Your task to perform on an android device: clear history in the chrome app Image 0: 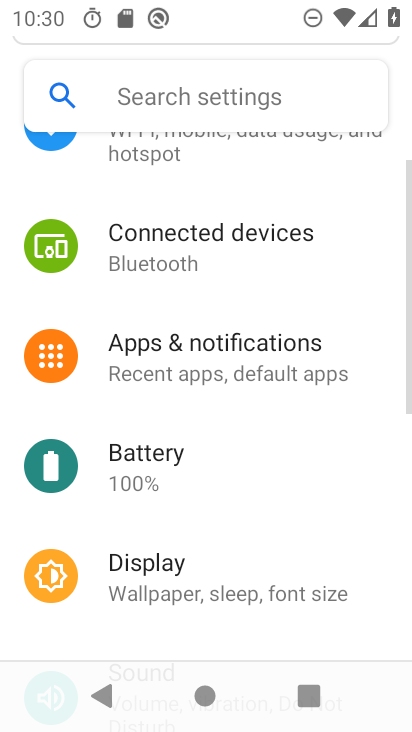
Step 0: press home button
Your task to perform on an android device: clear history in the chrome app Image 1: 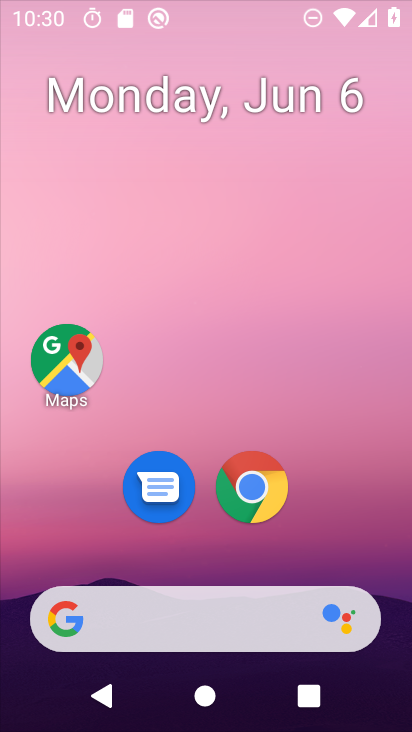
Step 1: drag from (383, 671) to (314, 76)
Your task to perform on an android device: clear history in the chrome app Image 2: 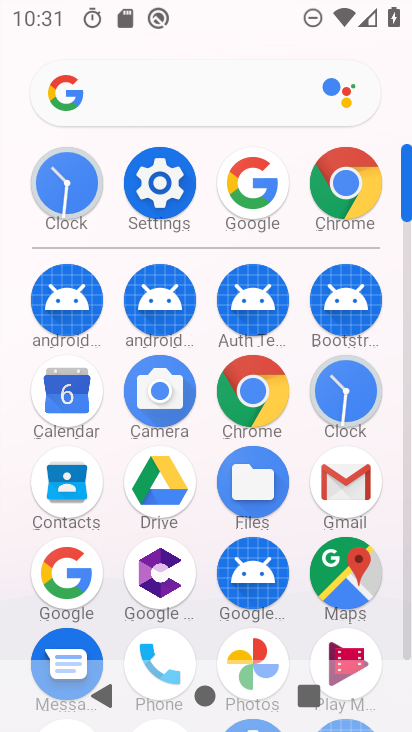
Step 2: click (278, 397)
Your task to perform on an android device: clear history in the chrome app Image 3: 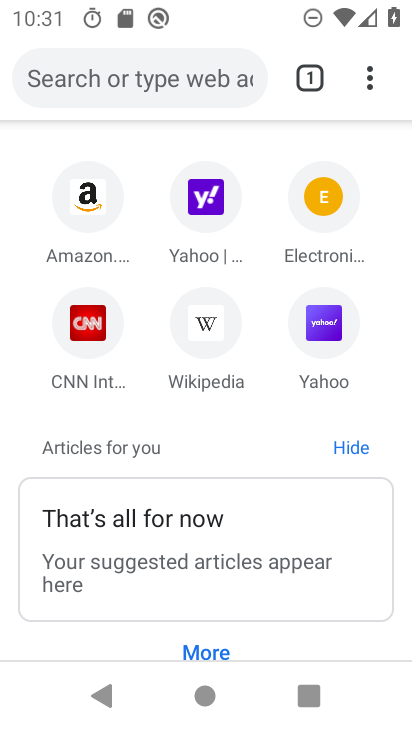
Step 3: click (374, 74)
Your task to perform on an android device: clear history in the chrome app Image 4: 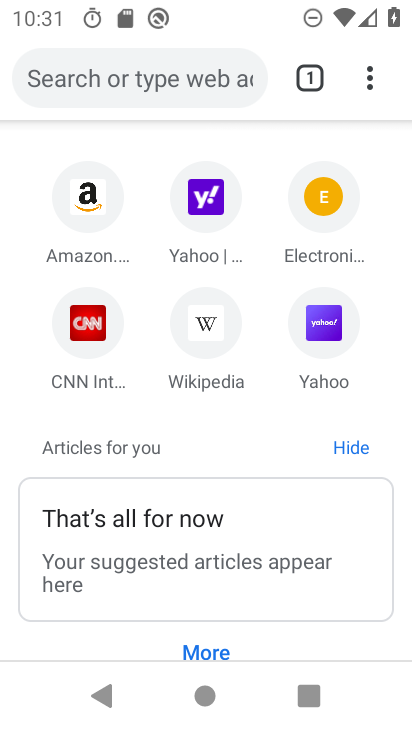
Step 4: click (374, 74)
Your task to perform on an android device: clear history in the chrome app Image 5: 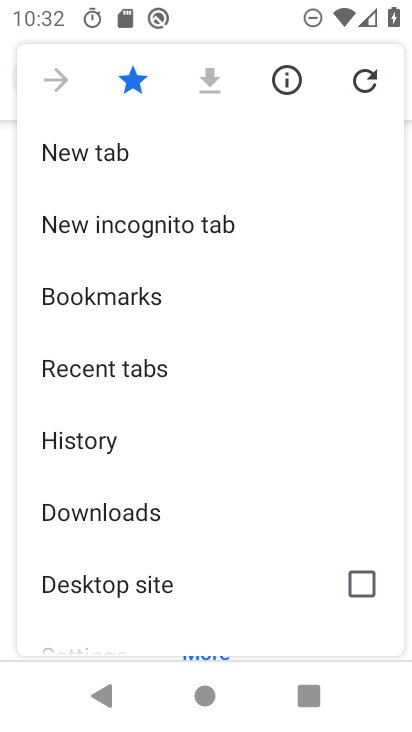
Step 5: click (115, 456)
Your task to perform on an android device: clear history in the chrome app Image 6: 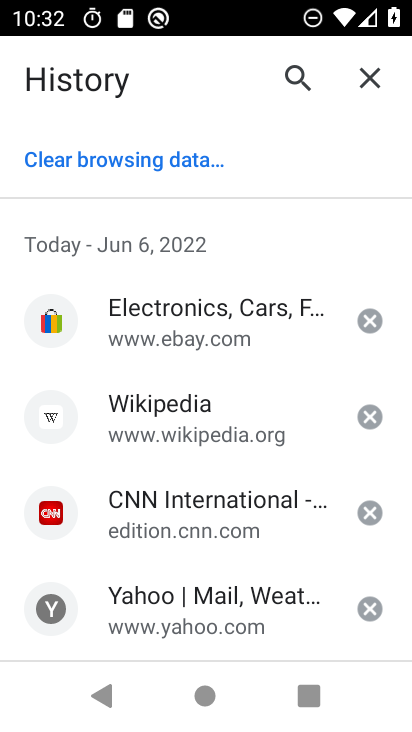
Step 6: click (163, 174)
Your task to perform on an android device: clear history in the chrome app Image 7: 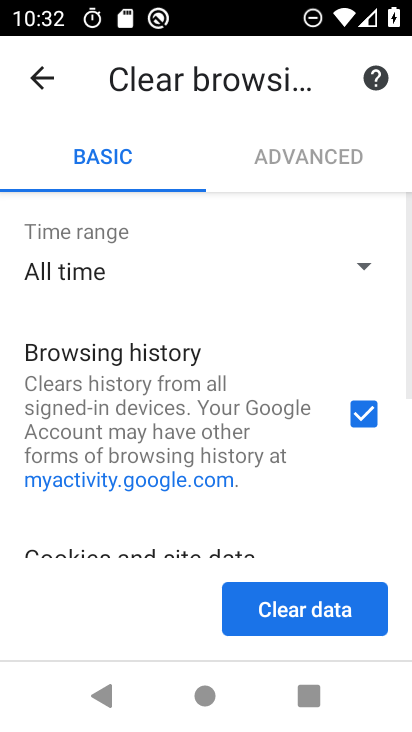
Step 7: click (348, 599)
Your task to perform on an android device: clear history in the chrome app Image 8: 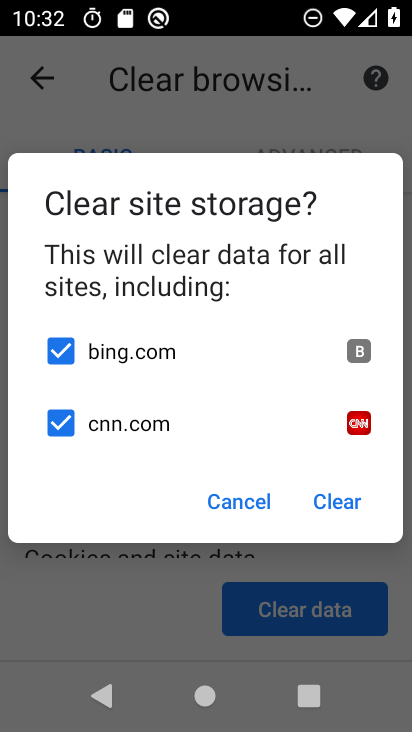
Step 8: click (341, 502)
Your task to perform on an android device: clear history in the chrome app Image 9: 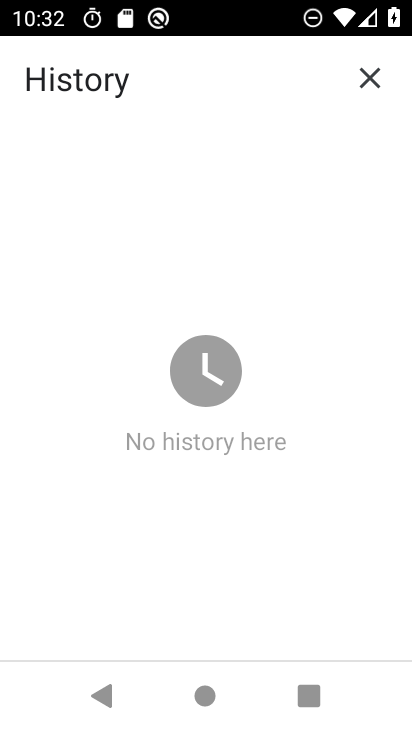
Step 9: task complete